Your task to perform on an android device: uninstall "Google News" Image 0: 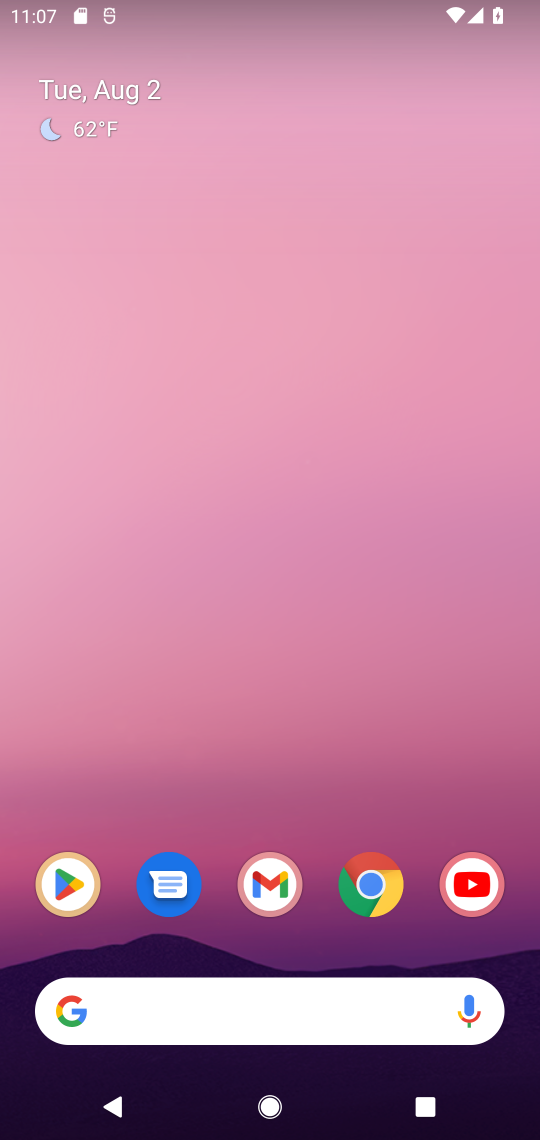
Step 0: click (70, 877)
Your task to perform on an android device: uninstall "Google News" Image 1: 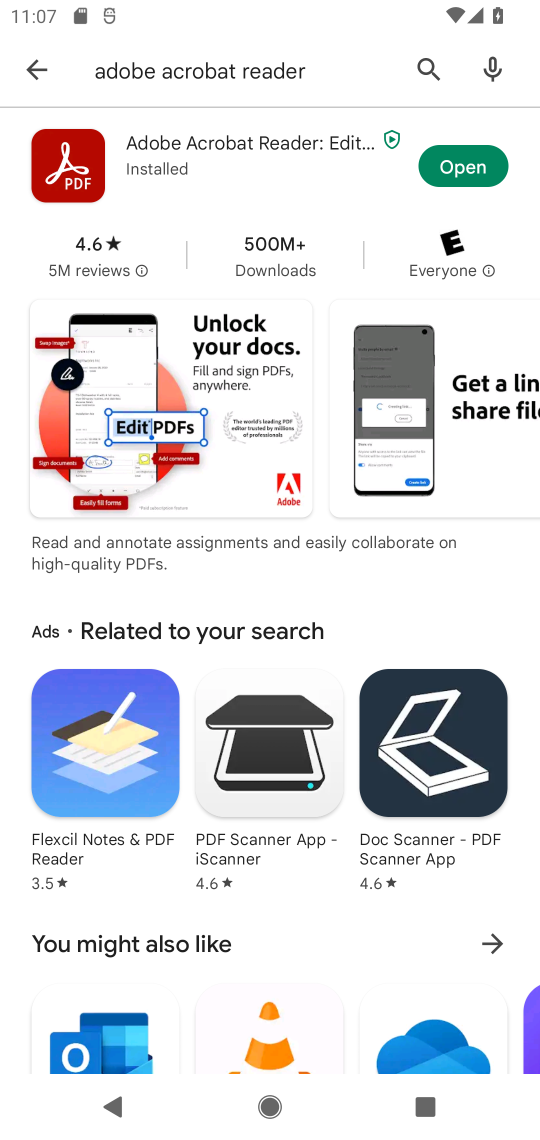
Step 1: click (263, 68)
Your task to perform on an android device: uninstall "Google News" Image 2: 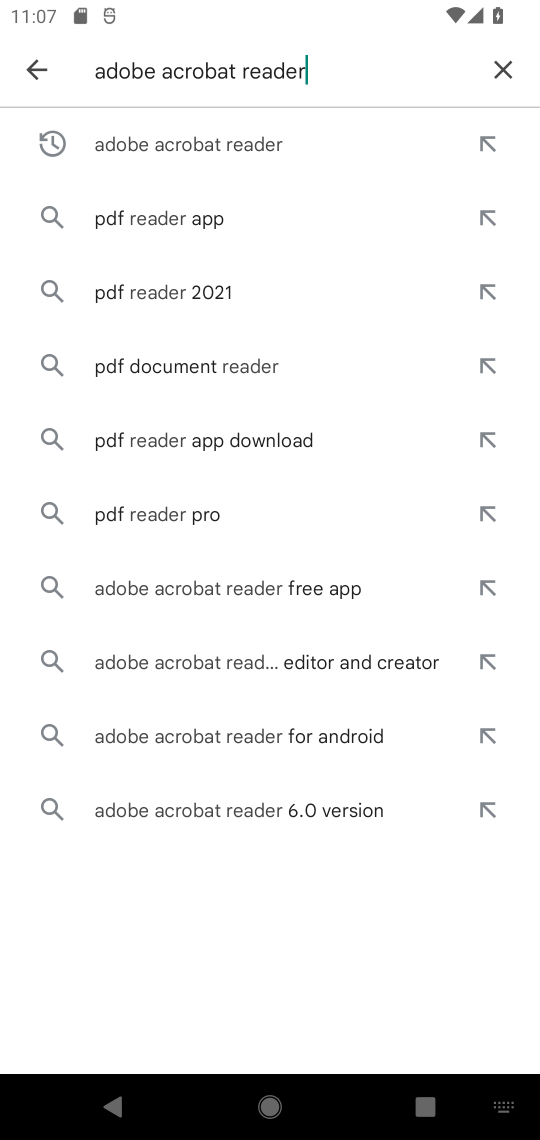
Step 2: click (508, 63)
Your task to perform on an android device: uninstall "Google News" Image 3: 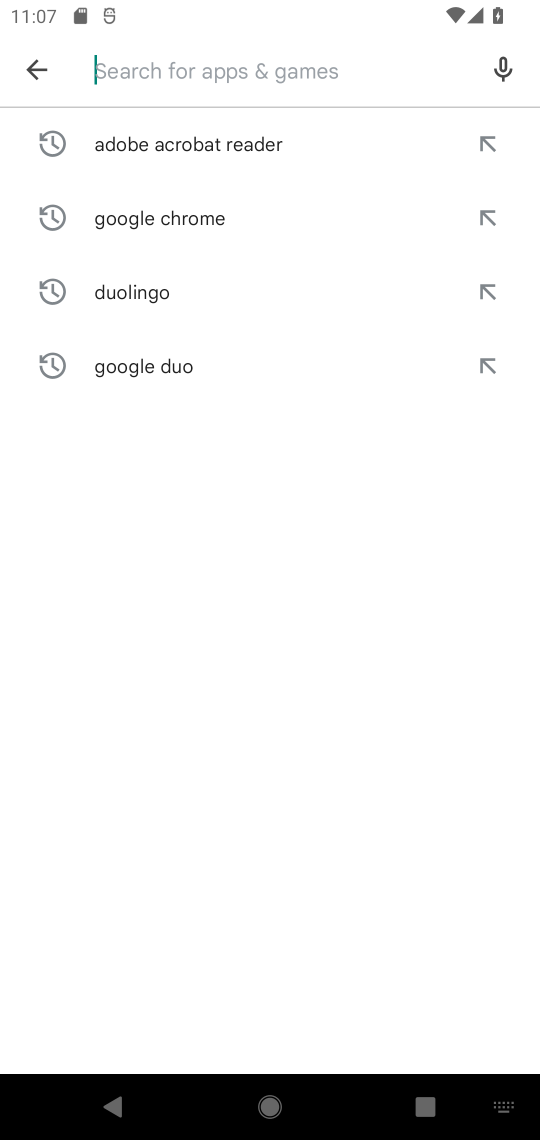
Step 3: type "google news"
Your task to perform on an android device: uninstall "Google News" Image 4: 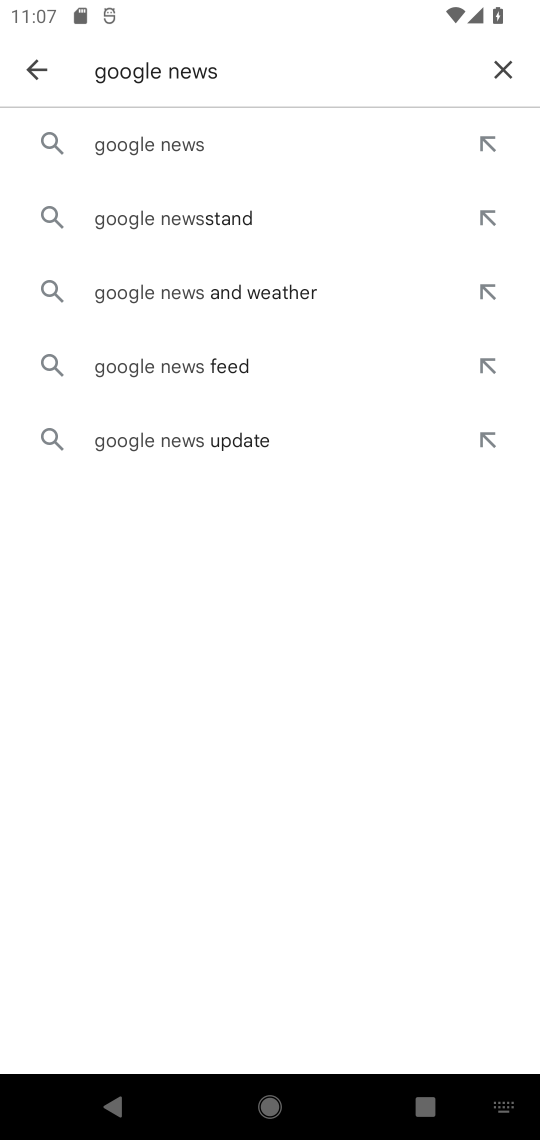
Step 4: click (213, 159)
Your task to perform on an android device: uninstall "Google News" Image 5: 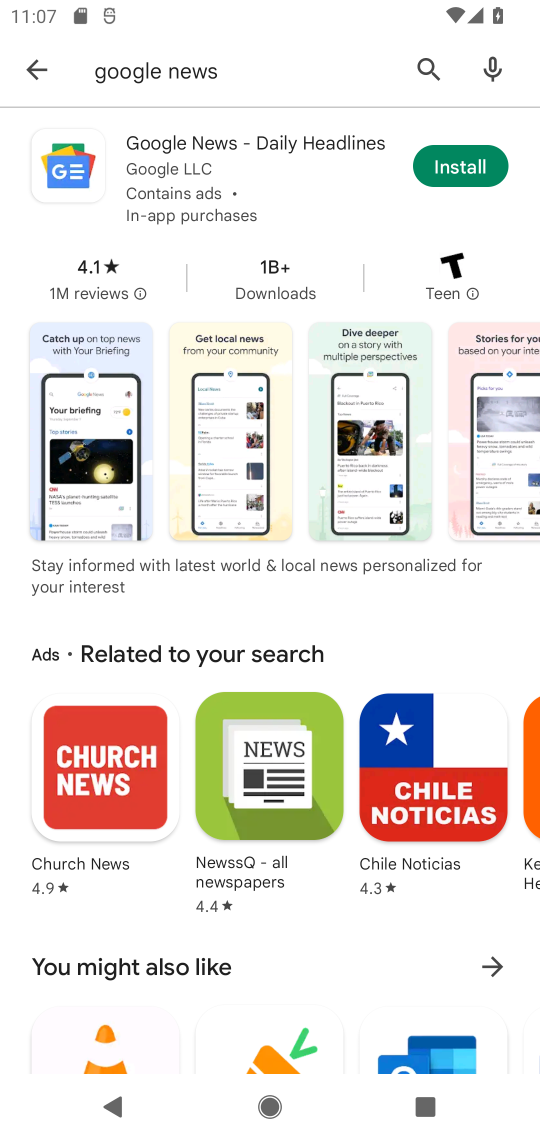
Step 5: task complete